Your task to perform on an android device: turn off wifi Image 0: 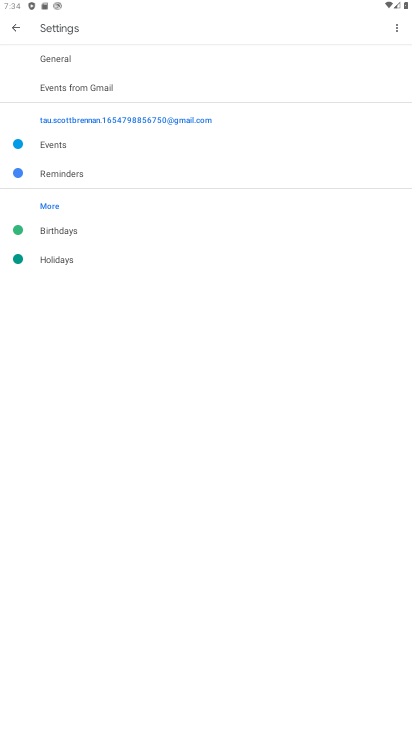
Step 0: press home button
Your task to perform on an android device: turn off wifi Image 1: 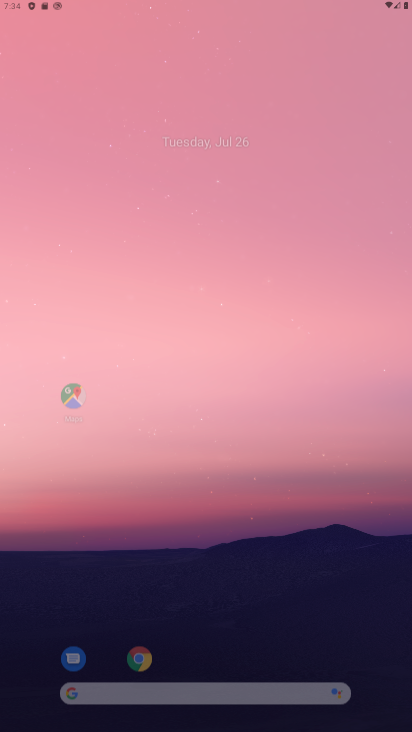
Step 1: drag from (396, 637) to (205, 6)
Your task to perform on an android device: turn off wifi Image 2: 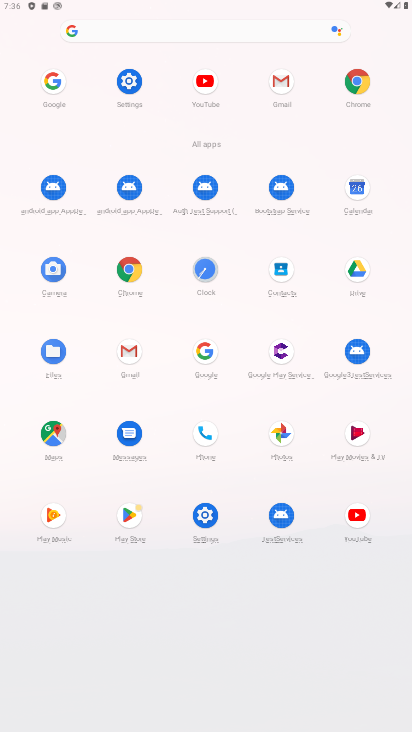
Step 2: drag from (207, 7) to (243, 618)
Your task to perform on an android device: turn off wifi Image 3: 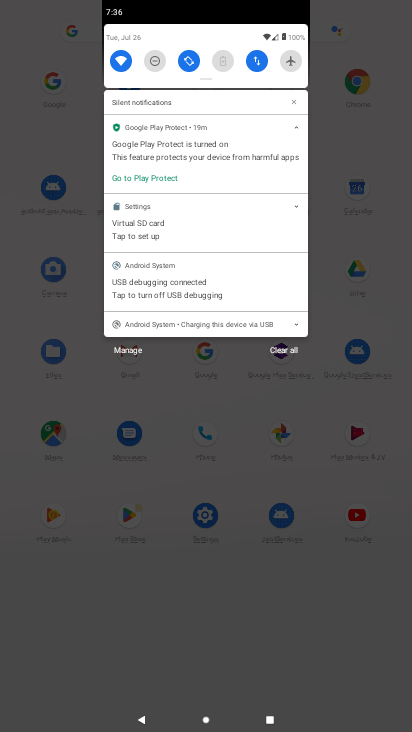
Step 3: click (115, 61)
Your task to perform on an android device: turn off wifi Image 4: 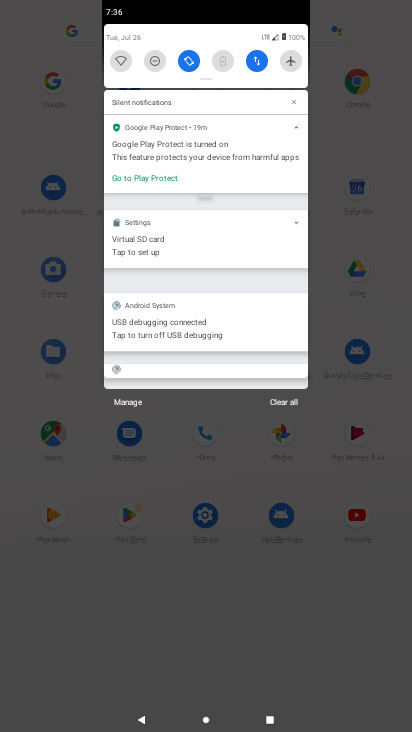
Step 4: task complete